Your task to perform on an android device: find snoozed emails in the gmail app Image 0: 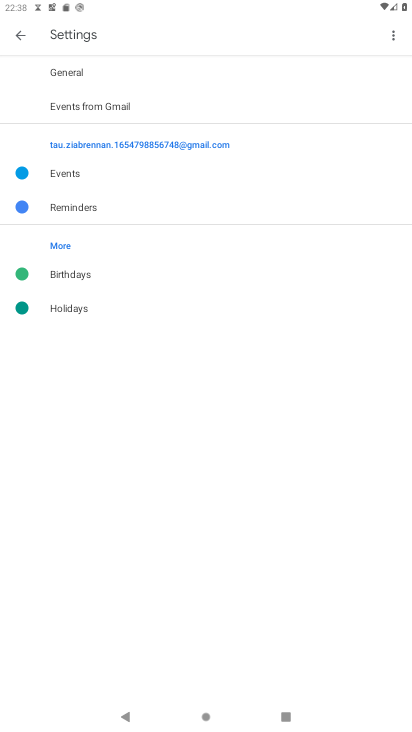
Step 0: press home button
Your task to perform on an android device: find snoozed emails in the gmail app Image 1: 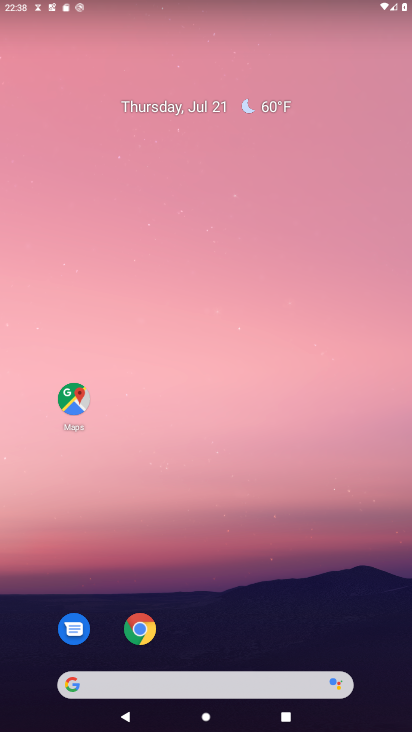
Step 1: drag from (183, 578) to (175, 89)
Your task to perform on an android device: find snoozed emails in the gmail app Image 2: 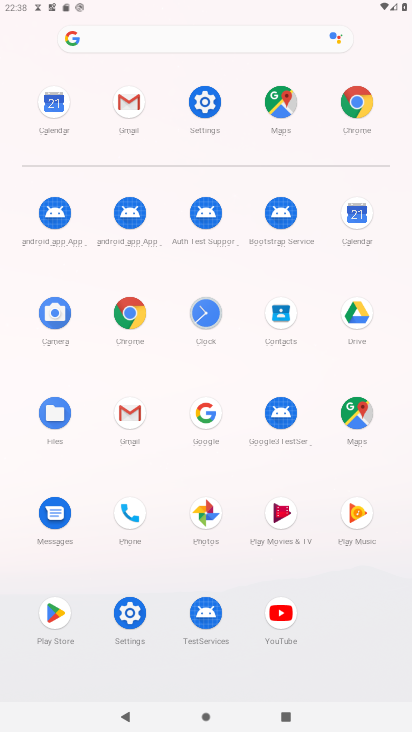
Step 2: click (135, 101)
Your task to perform on an android device: find snoozed emails in the gmail app Image 3: 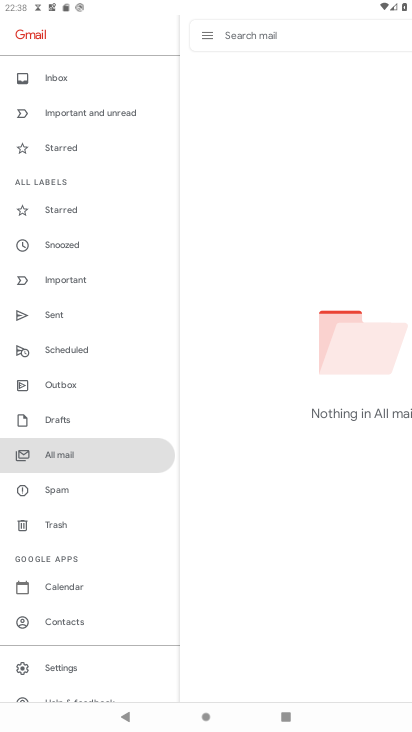
Step 3: click (72, 243)
Your task to perform on an android device: find snoozed emails in the gmail app Image 4: 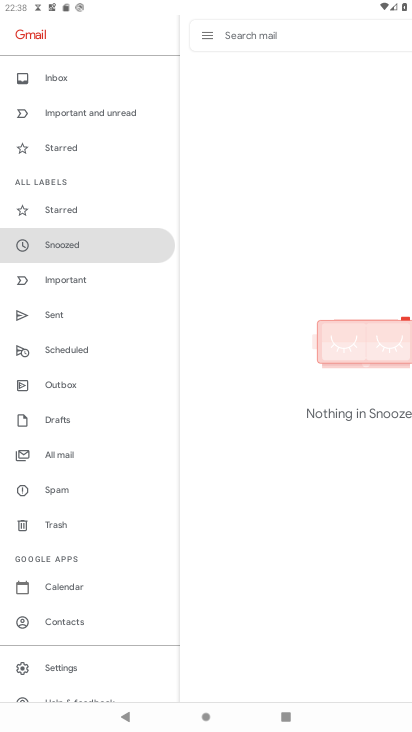
Step 4: click (72, 243)
Your task to perform on an android device: find snoozed emails in the gmail app Image 5: 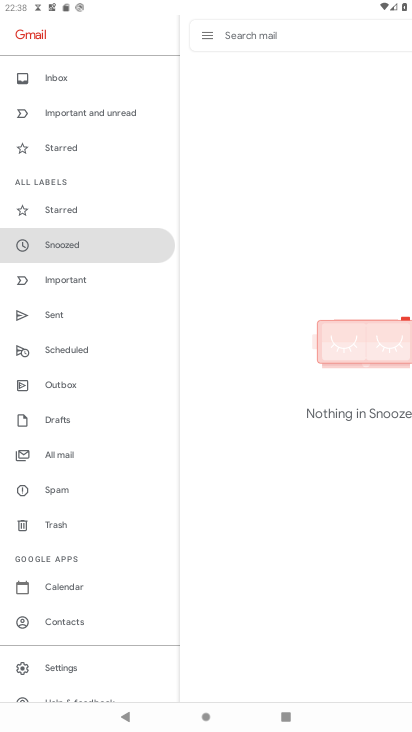
Step 5: task complete